Your task to perform on an android device: toggle data saver in the chrome app Image 0: 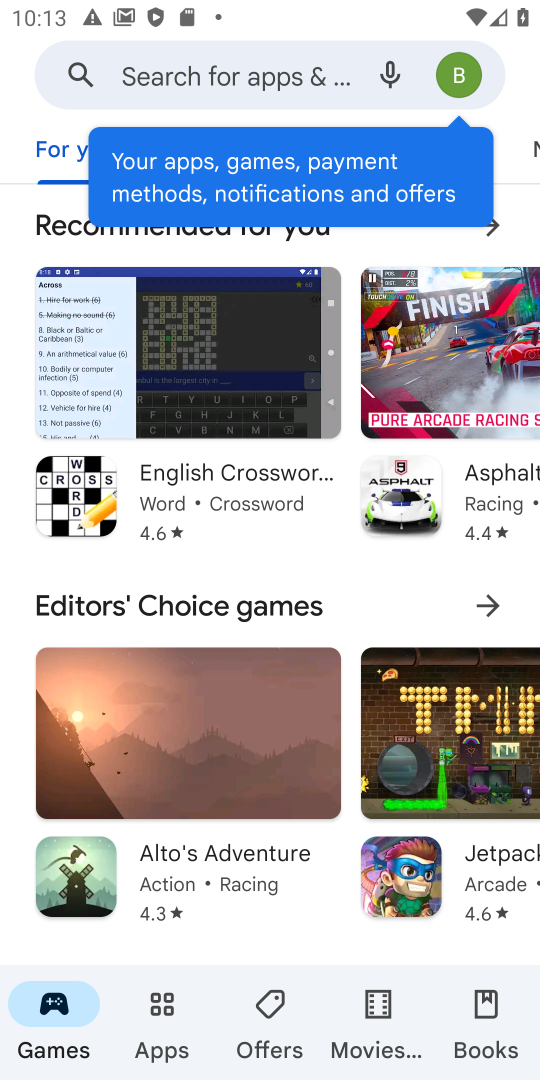
Step 0: press home button
Your task to perform on an android device: toggle data saver in the chrome app Image 1: 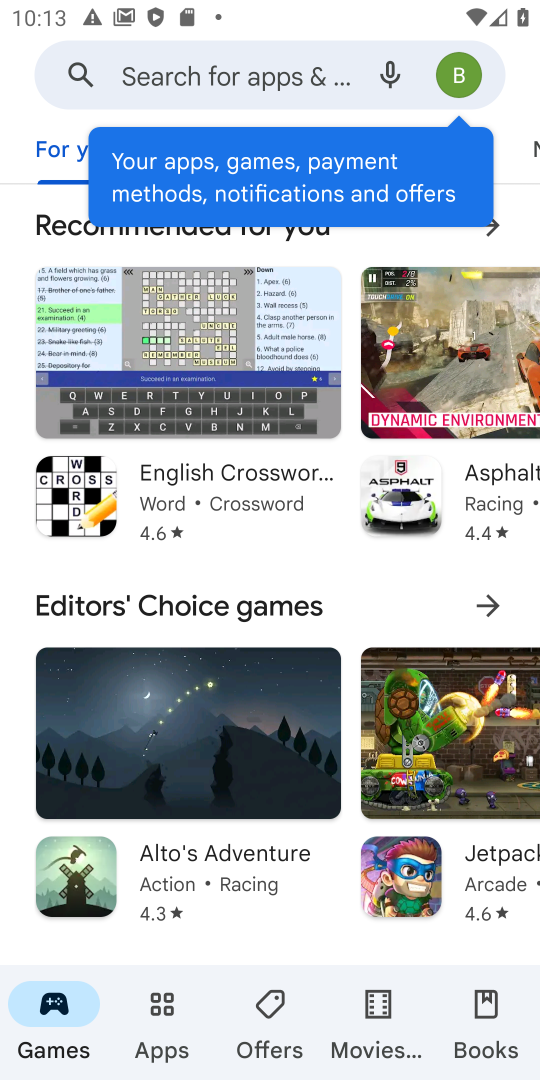
Step 1: press home button
Your task to perform on an android device: toggle data saver in the chrome app Image 2: 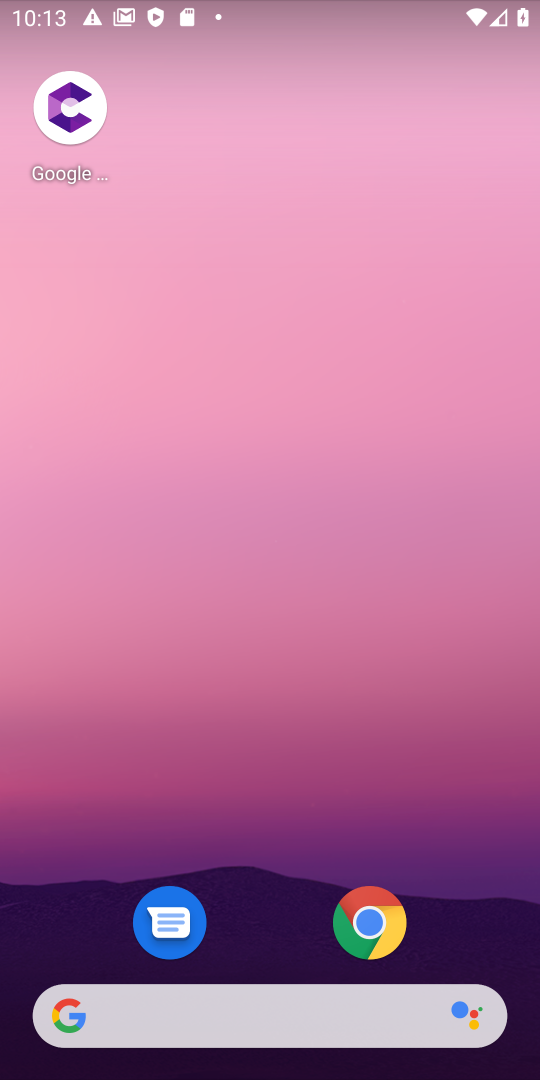
Step 2: drag from (252, 894) to (399, 20)
Your task to perform on an android device: toggle data saver in the chrome app Image 3: 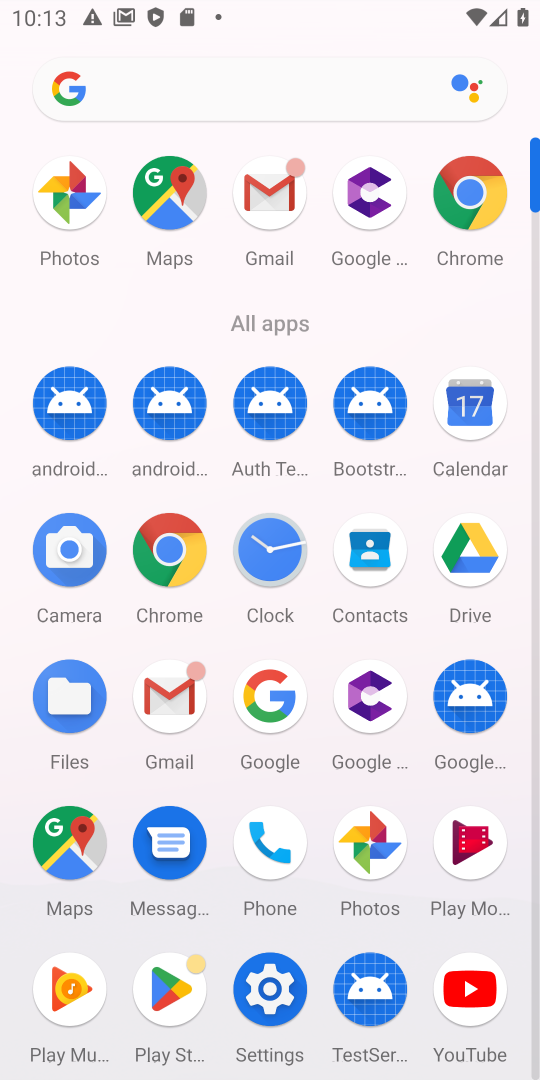
Step 3: click (169, 542)
Your task to perform on an android device: toggle data saver in the chrome app Image 4: 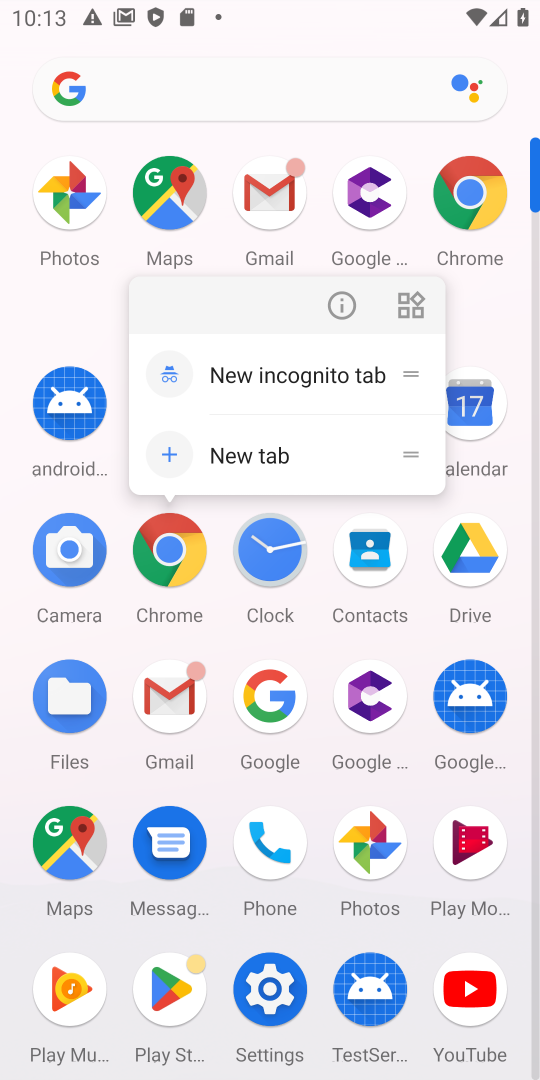
Step 4: click (170, 557)
Your task to perform on an android device: toggle data saver in the chrome app Image 5: 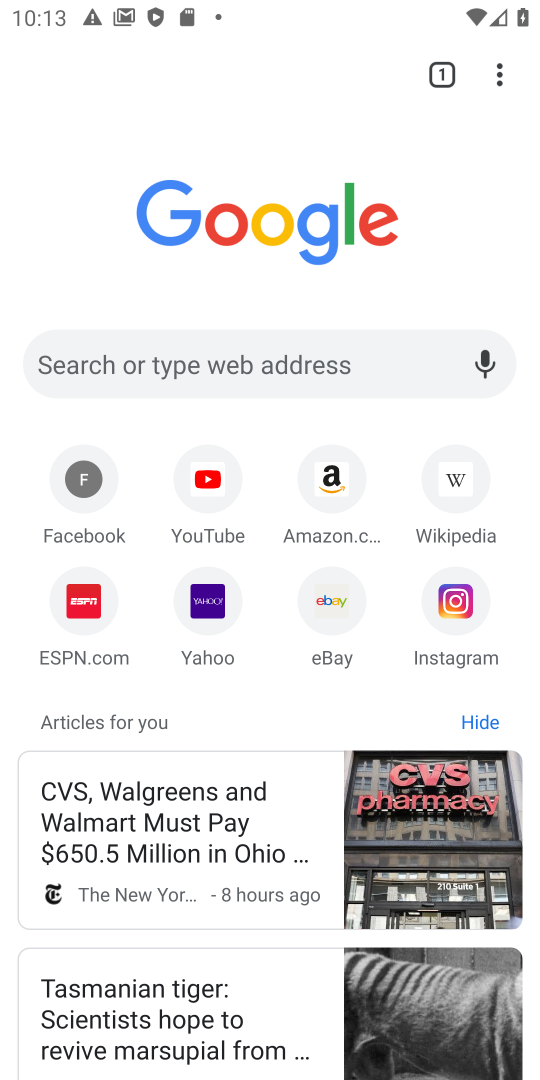
Step 5: drag from (498, 59) to (274, 631)
Your task to perform on an android device: toggle data saver in the chrome app Image 6: 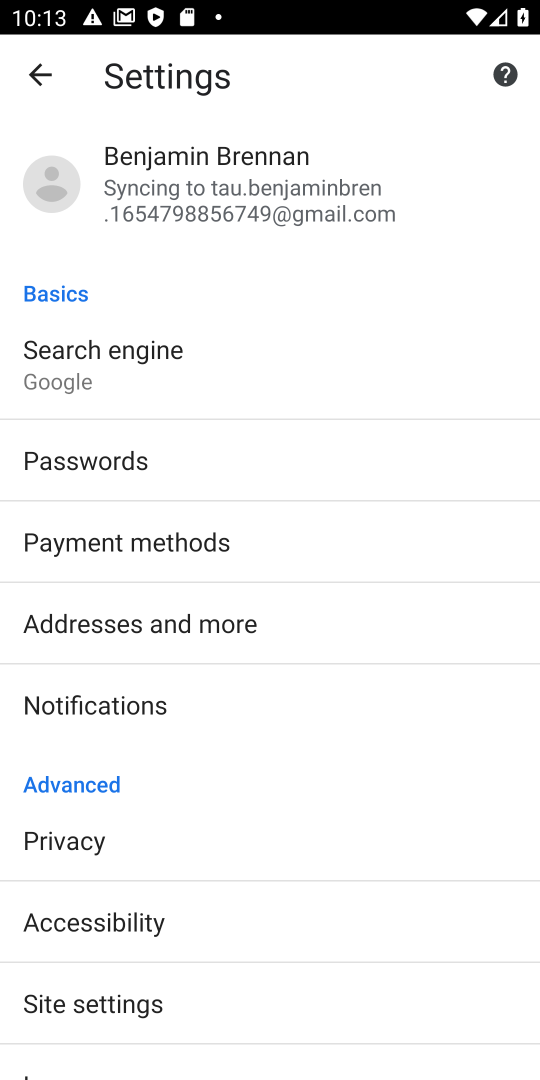
Step 6: drag from (252, 861) to (385, 62)
Your task to perform on an android device: toggle data saver in the chrome app Image 7: 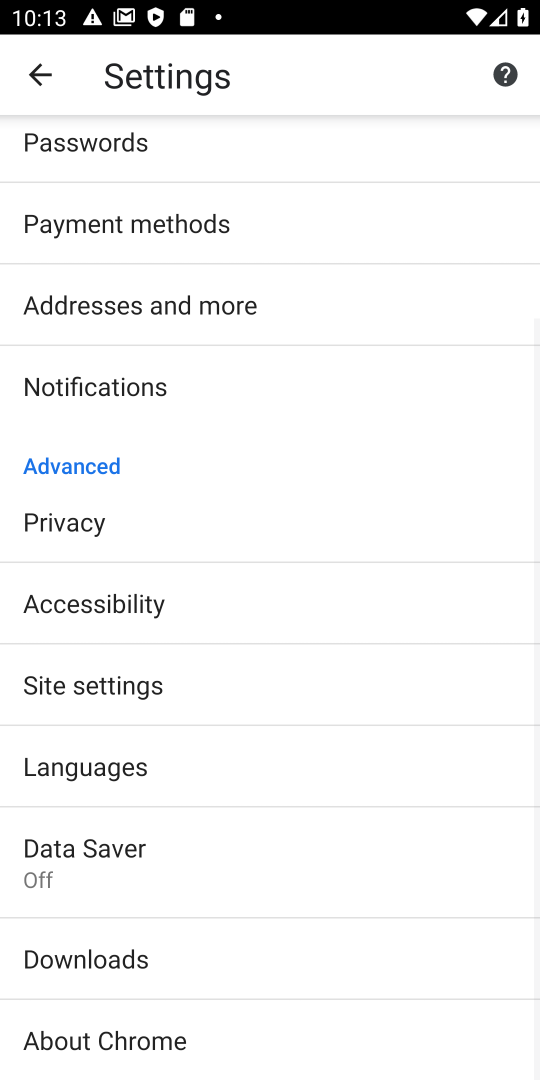
Step 7: click (119, 851)
Your task to perform on an android device: toggle data saver in the chrome app Image 8: 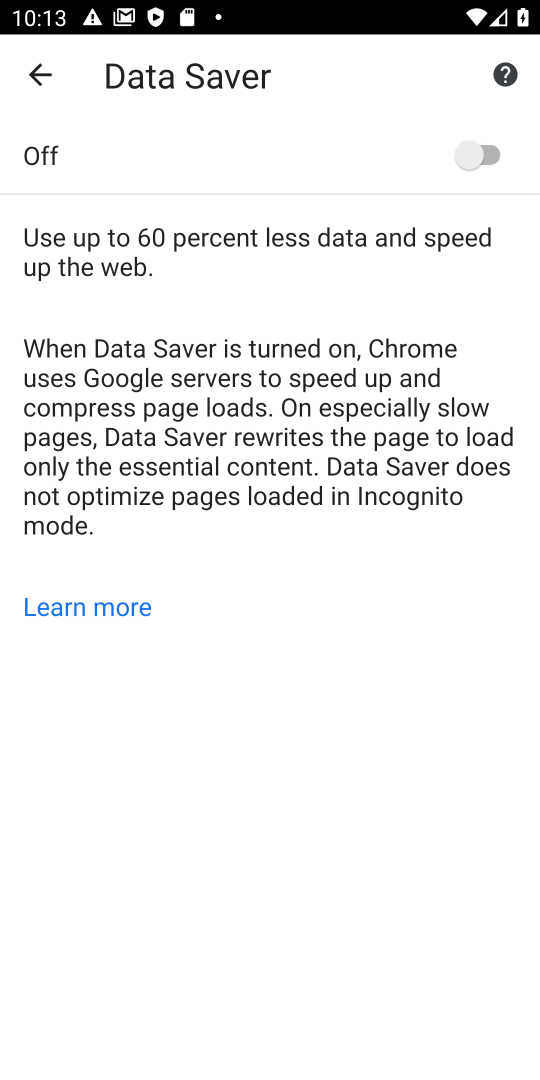
Step 8: click (483, 145)
Your task to perform on an android device: toggle data saver in the chrome app Image 9: 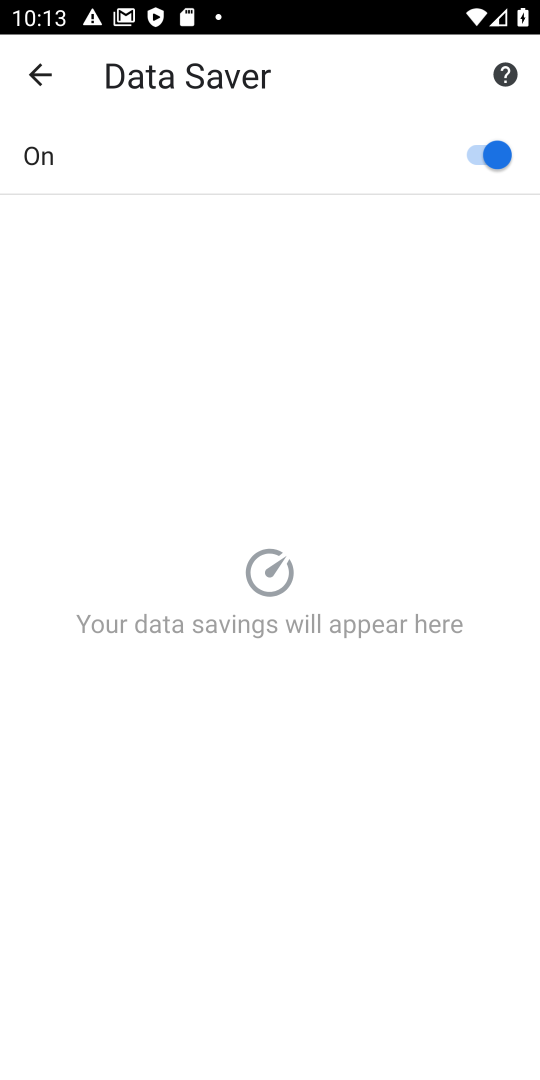
Step 9: task complete